Your task to perform on an android device: set default search engine in the chrome app Image 0: 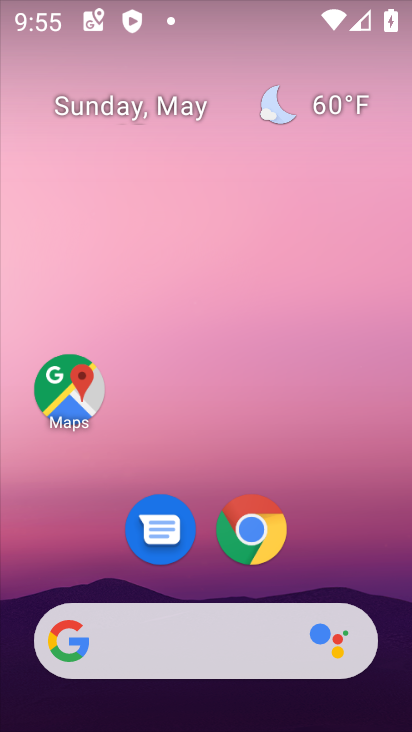
Step 0: drag from (386, 566) to (377, 188)
Your task to perform on an android device: set default search engine in the chrome app Image 1: 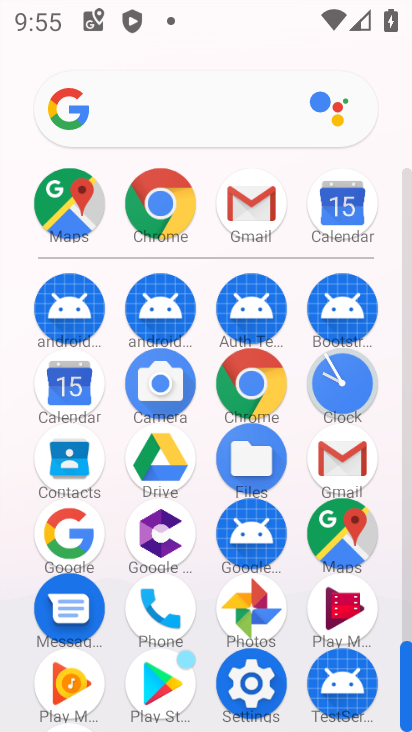
Step 1: click (247, 394)
Your task to perform on an android device: set default search engine in the chrome app Image 2: 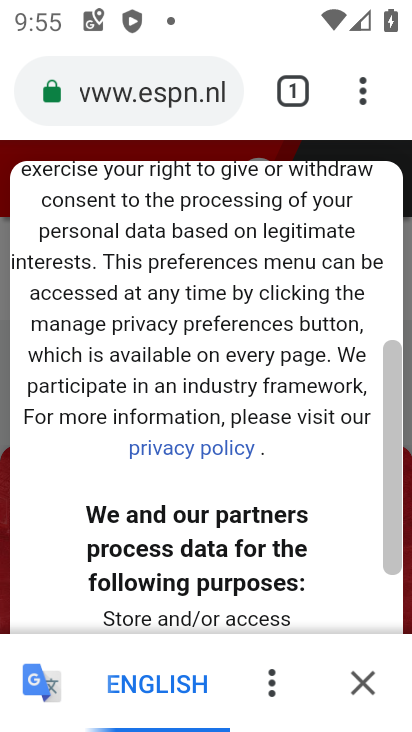
Step 2: click (364, 87)
Your task to perform on an android device: set default search engine in the chrome app Image 3: 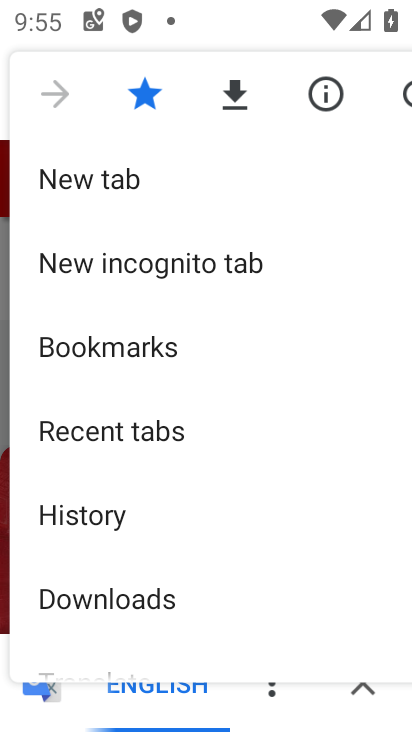
Step 3: drag from (291, 547) to (281, 299)
Your task to perform on an android device: set default search engine in the chrome app Image 4: 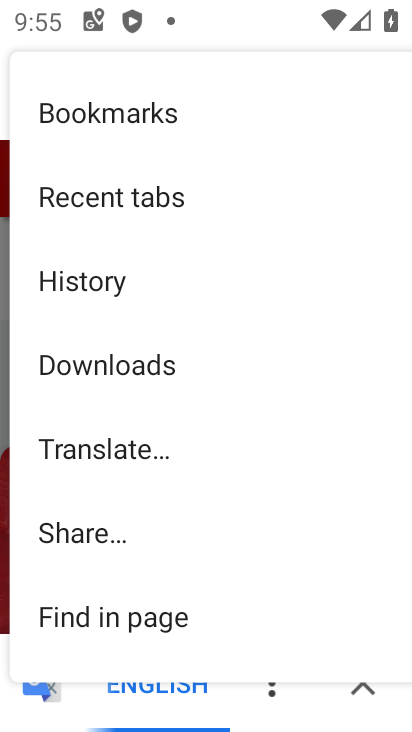
Step 4: drag from (298, 585) to (289, 386)
Your task to perform on an android device: set default search engine in the chrome app Image 5: 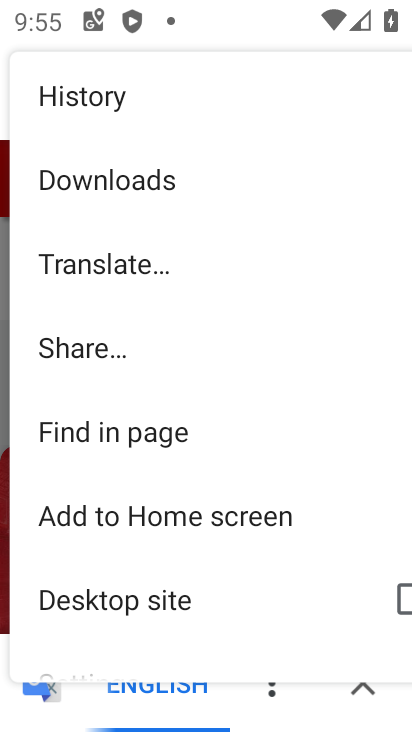
Step 5: drag from (306, 600) to (327, 418)
Your task to perform on an android device: set default search engine in the chrome app Image 6: 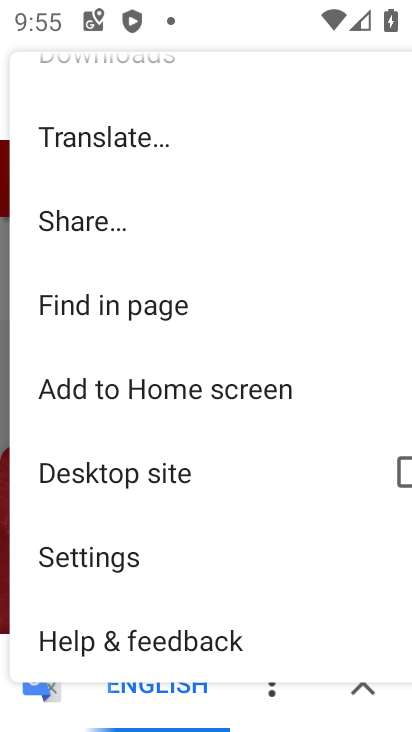
Step 6: drag from (282, 592) to (322, 376)
Your task to perform on an android device: set default search engine in the chrome app Image 7: 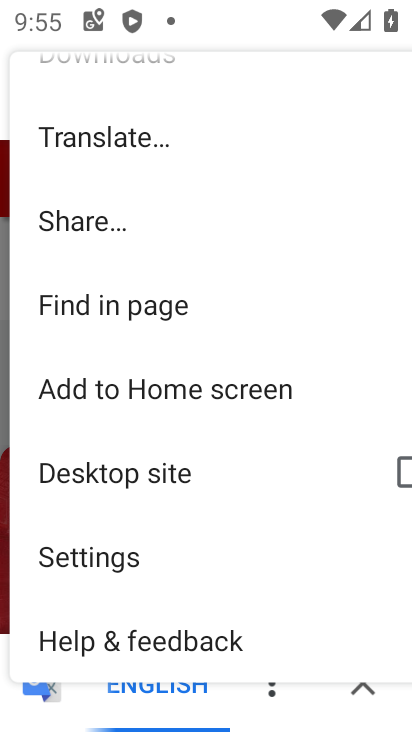
Step 7: click (178, 569)
Your task to perform on an android device: set default search engine in the chrome app Image 8: 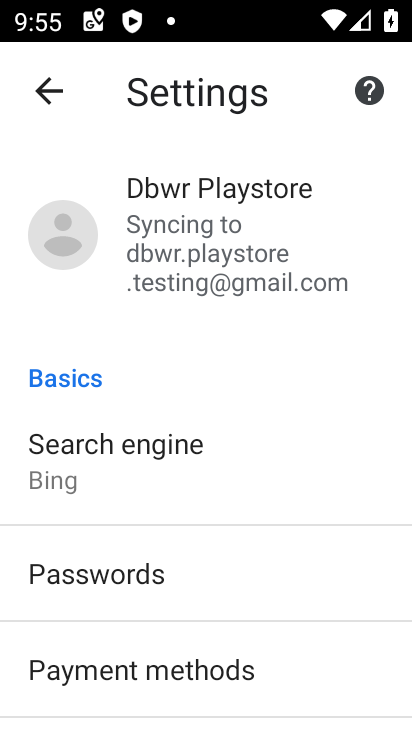
Step 8: drag from (319, 603) to (303, 421)
Your task to perform on an android device: set default search engine in the chrome app Image 9: 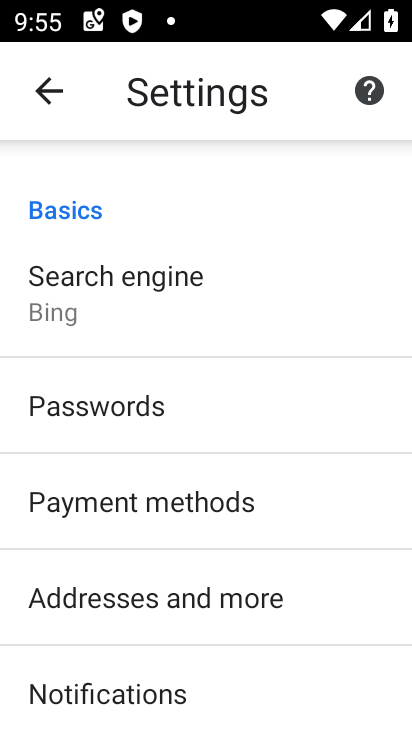
Step 9: drag from (310, 652) to (314, 467)
Your task to perform on an android device: set default search engine in the chrome app Image 10: 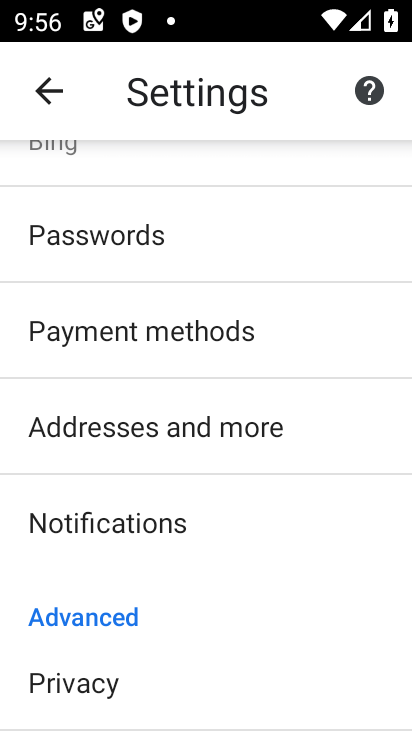
Step 10: drag from (305, 665) to (299, 474)
Your task to perform on an android device: set default search engine in the chrome app Image 11: 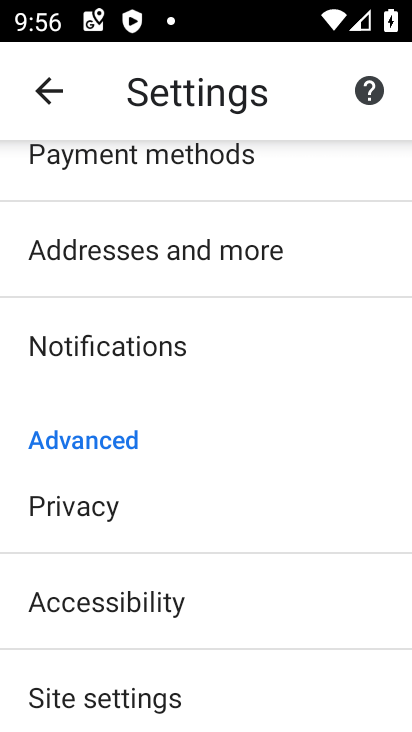
Step 11: drag from (318, 609) to (325, 379)
Your task to perform on an android device: set default search engine in the chrome app Image 12: 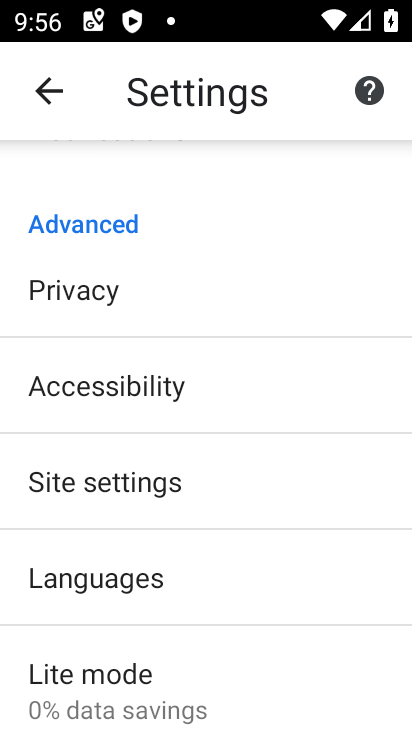
Step 12: drag from (304, 647) to (311, 462)
Your task to perform on an android device: set default search engine in the chrome app Image 13: 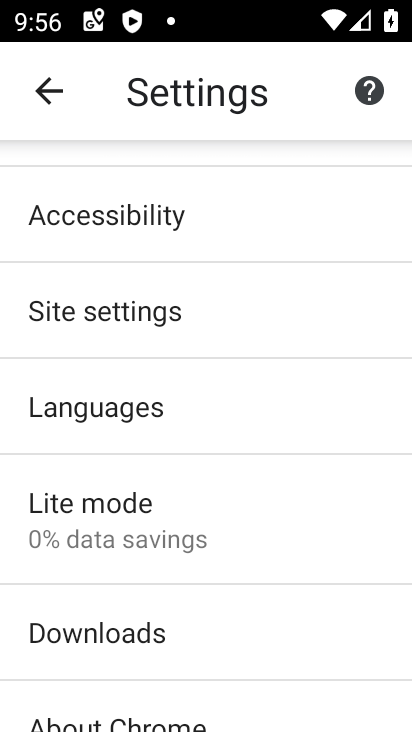
Step 13: drag from (284, 302) to (293, 508)
Your task to perform on an android device: set default search engine in the chrome app Image 14: 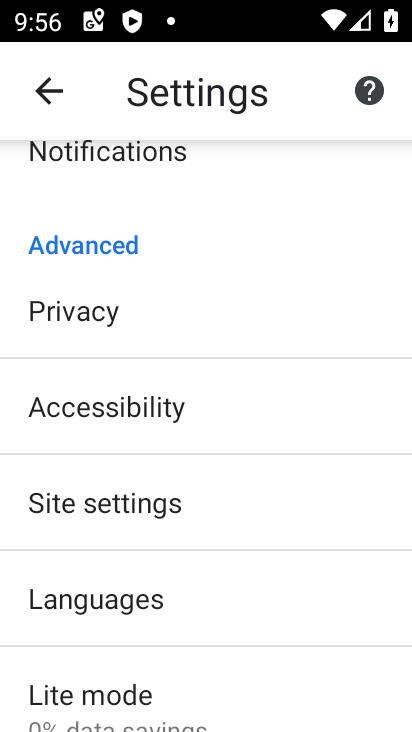
Step 14: drag from (282, 318) to (291, 507)
Your task to perform on an android device: set default search engine in the chrome app Image 15: 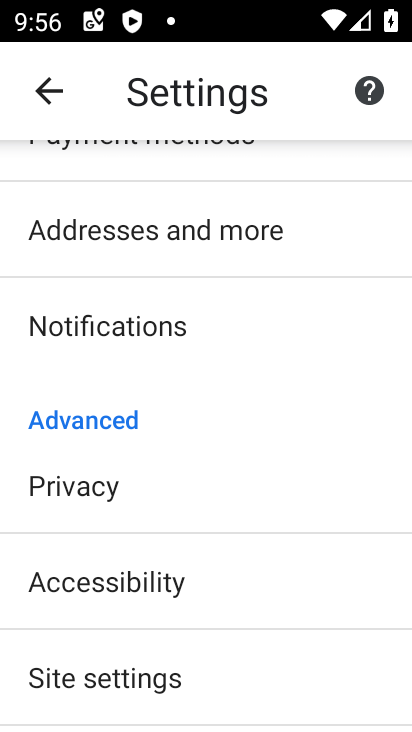
Step 15: drag from (283, 336) to (280, 486)
Your task to perform on an android device: set default search engine in the chrome app Image 16: 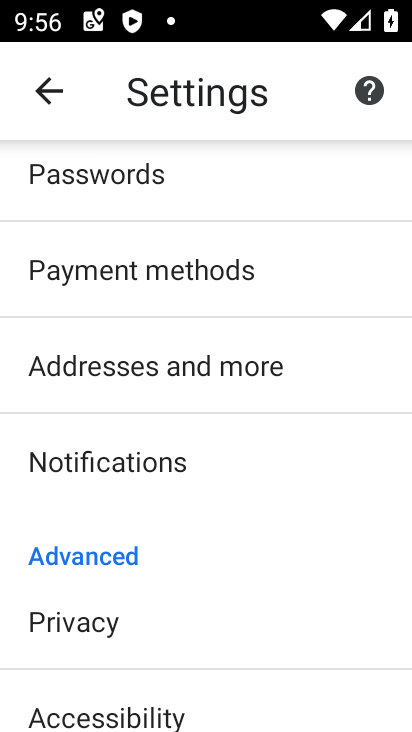
Step 16: drag from (312, 280) to (312, 449)
Your task to perform on an android device: set default search engine in the chrome app Image 17: 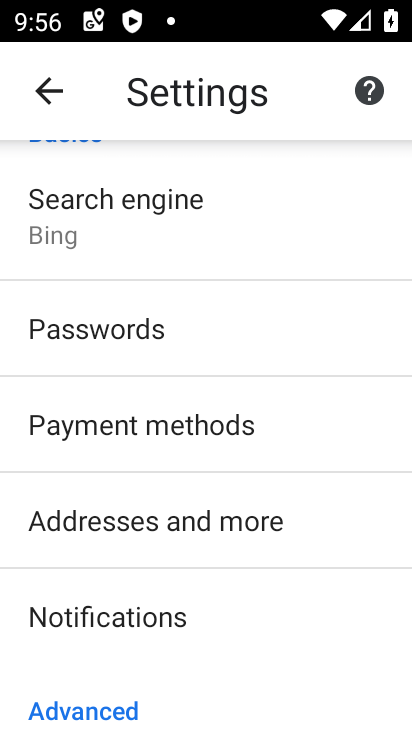
Step 17: drag from (319, 310) to (322, 493)
Your task to perform on an android device: set default search engine in the chrome app Image 18: 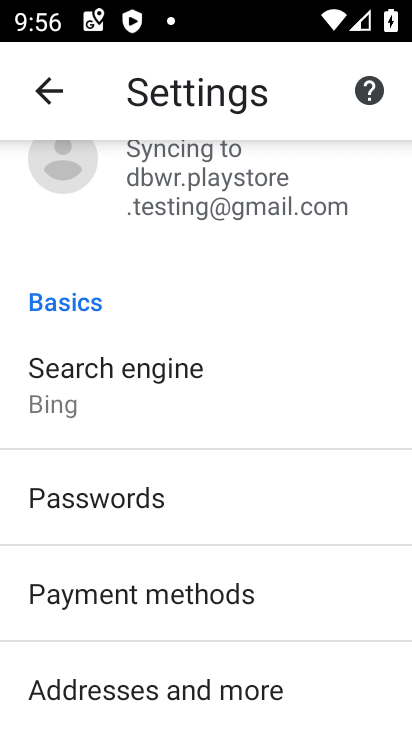
Step 18: click (151, 404)
Your task to perform on an android device: set default search engine in the chrome app Image 19: 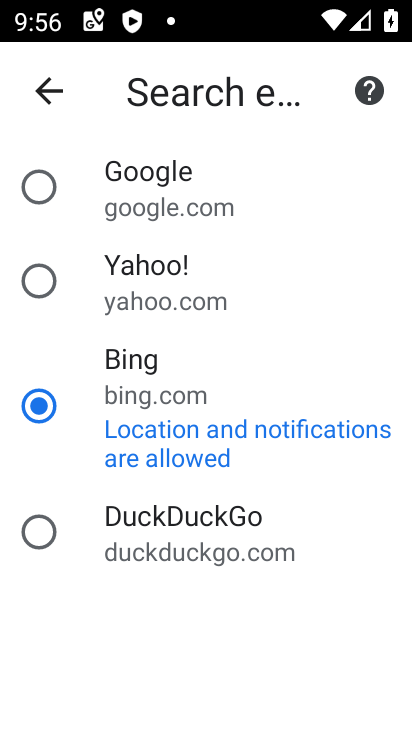
Step 19: click (62, 157)
Your task to perform on an android device: set default search engine in the chrome app Image 20: 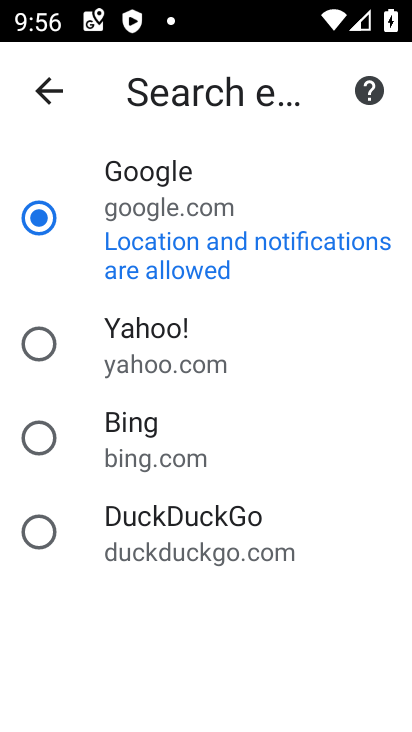
Step 20: task complete